Your task to perform on an android device: Go to accessibility settings Image 0: 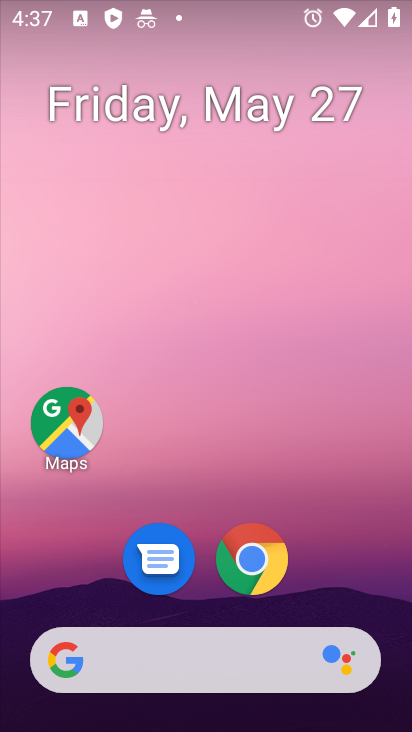
Step 0: drag from (313, 661) to (237, 7)
Your task to perform on an android device: Go to accessibility settings Image 1: 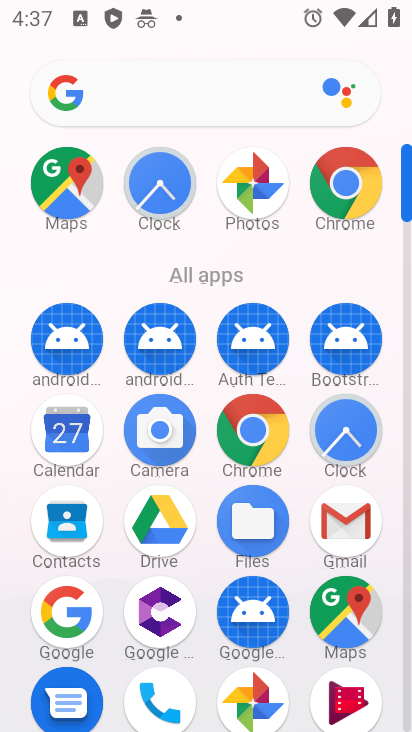
Step 1: drag from (305, 627) to (255, 158)
Your task to perform on an android device: Go to accessibility settings Image 2: 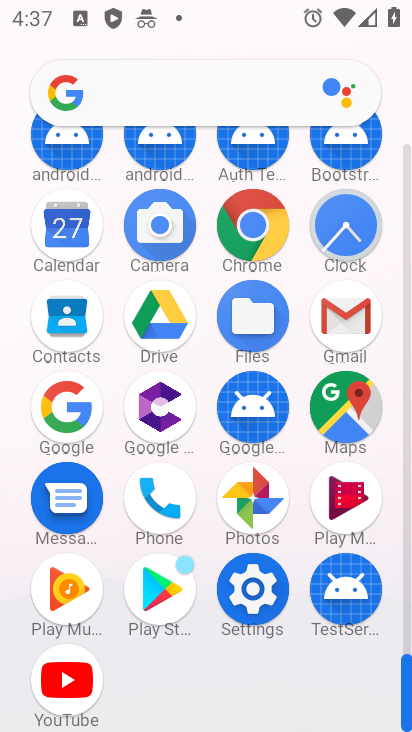
Step 2: click (264, 580)
Your task to perform on an android device: Go to accessibility settings Image 3: 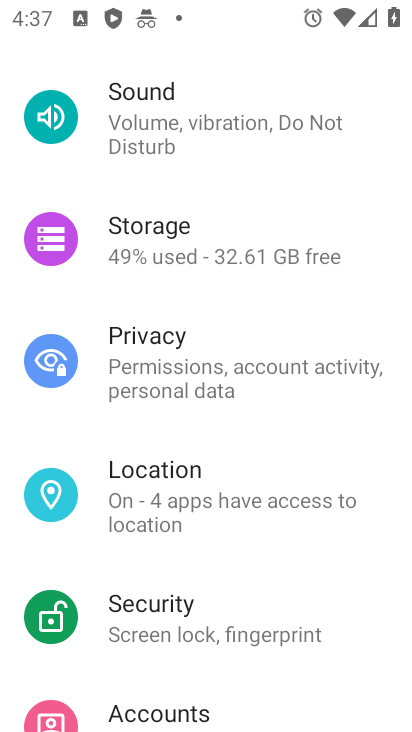
Step 3: drag from (250, 277) to (280, 718)
Your task to perform on an android device: Go to accessibility settings Image 4: 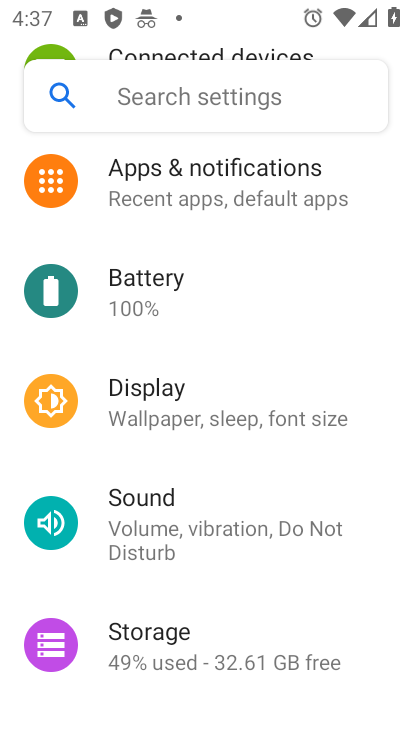
Step 4: drag from (239, 625) to (261, 80)
Your task to perform on an android device: Go to accessibility settings Image 5: 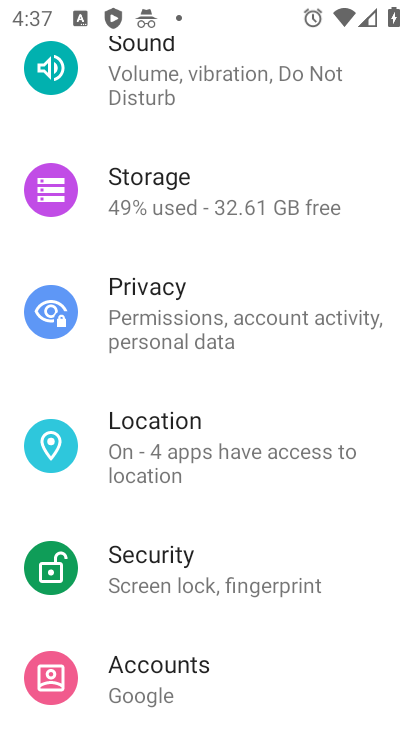
Step 5: drag from (210, 646) to (244, 147)
Your task to perform on an android device: Go to accessibility settings Image 6: 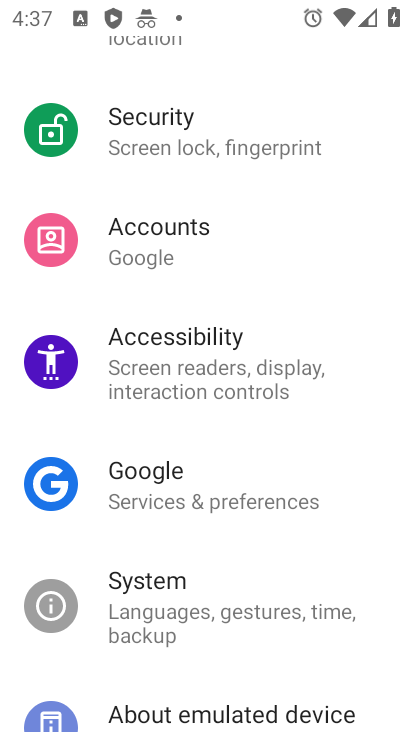
Step 6: click (238, 361)
Your task to perform on an android device: Go to accessibility settings Image 7: 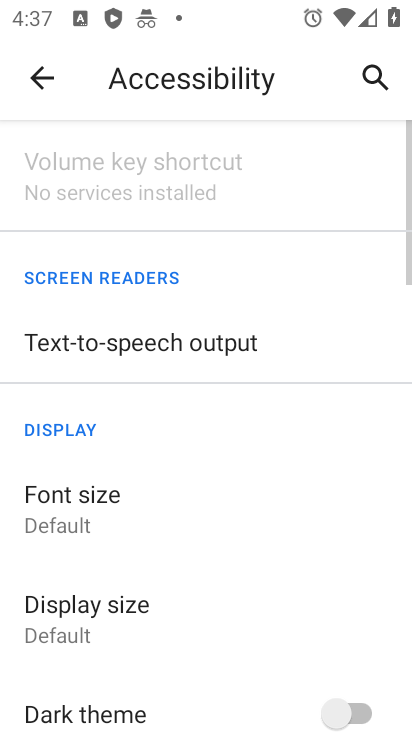
Step 7: task complete